Your task to perform on an android device: check google app version Image 0: 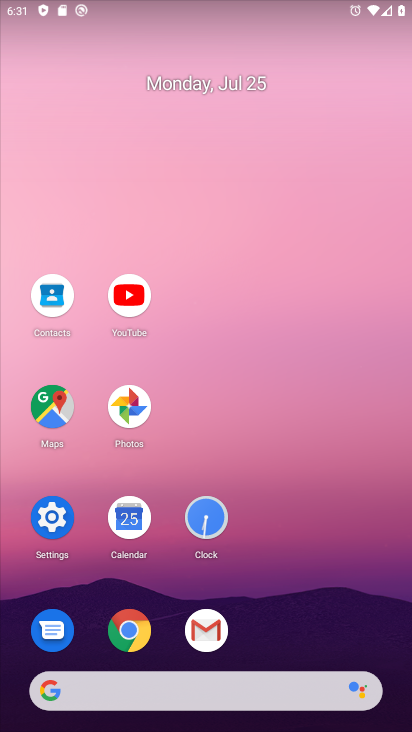
Step 0: click (48, 691)
Your task to perform on an android device: check google app version Image 1: 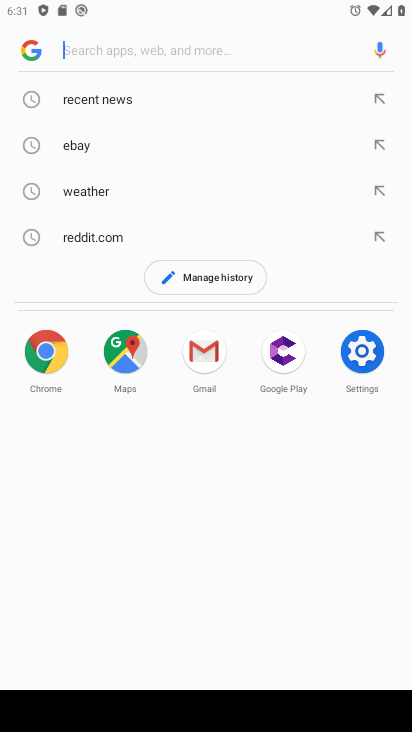
Step 1: click (27, 42)
Your task to perform on an android device: check google app version Image 2: 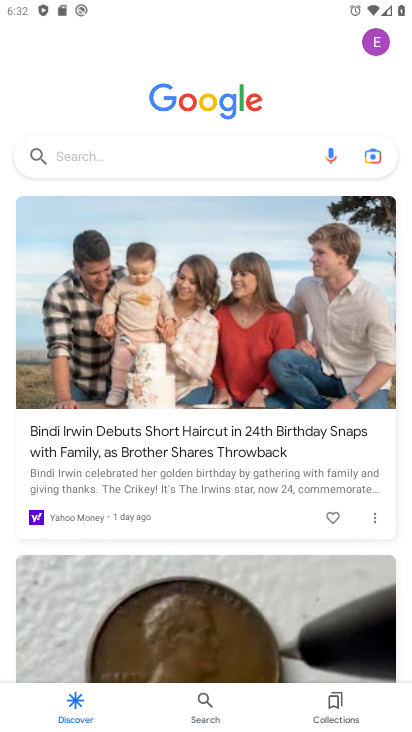
Step 2: click (373, 39)
Your task to perform on an android device: check google app version Image 3: 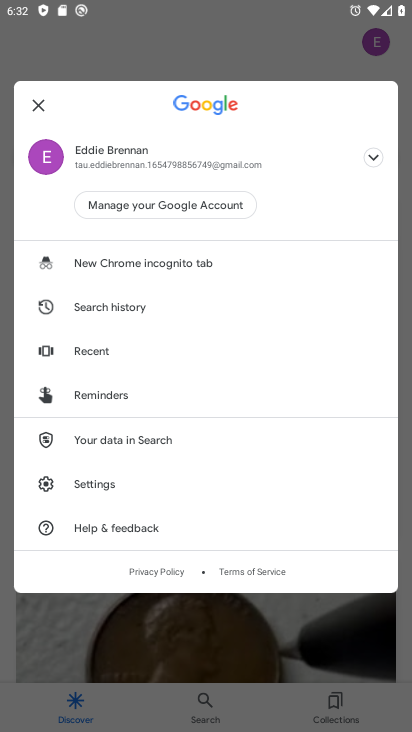
Step 3: click (83, 485)
Your task to perform on an android device: check google app version Image 4: 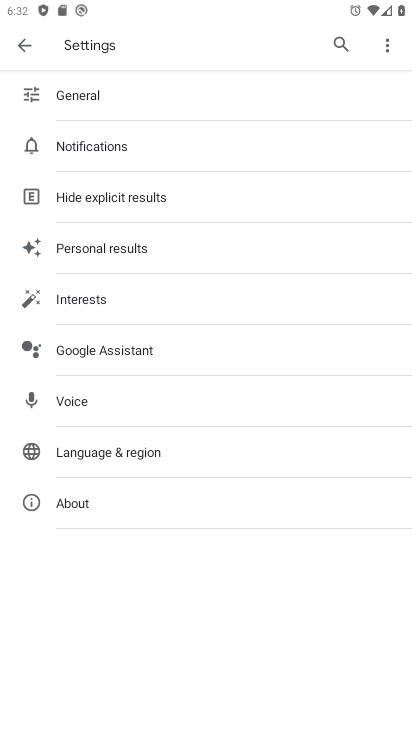
Step 4: click (77, 499)
Your task to perform on an android device: check google app version Image 5: 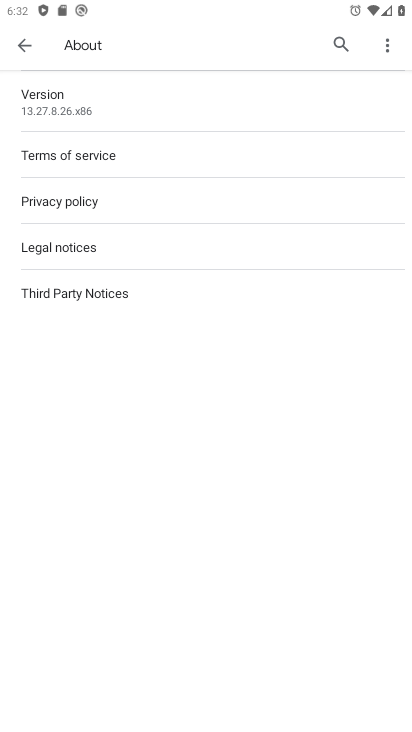
Step 5: task complete